Your task to perform on an android device: Go to Maps Image 0: 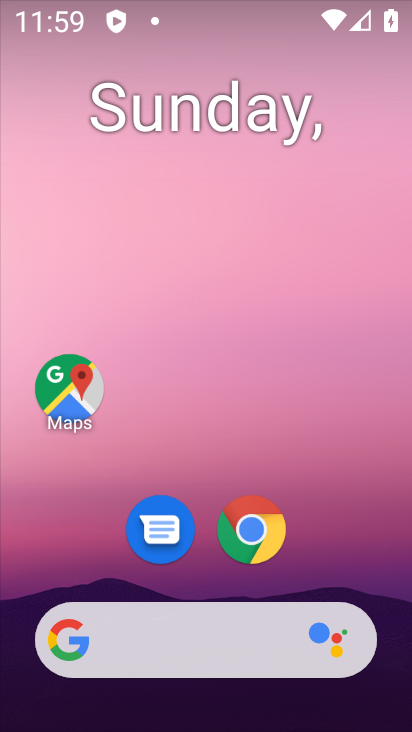
Step 0: click (66, 389)
Your task to perform on an android device: Go to Maps Image 1: 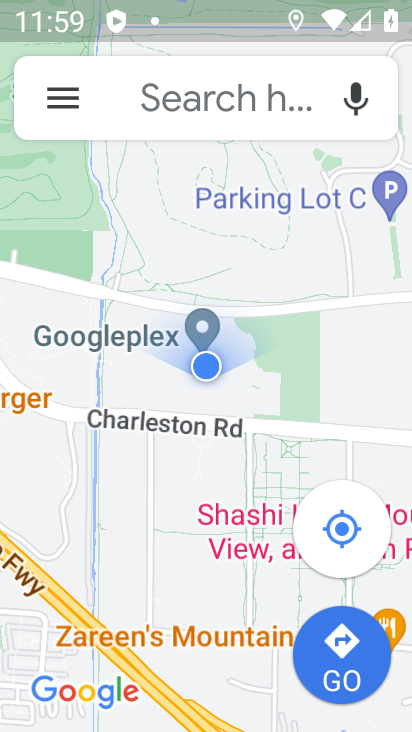
Step 1: task complete